Your task to perform on an android device: toggle show notifications on the lock screen Image 0: 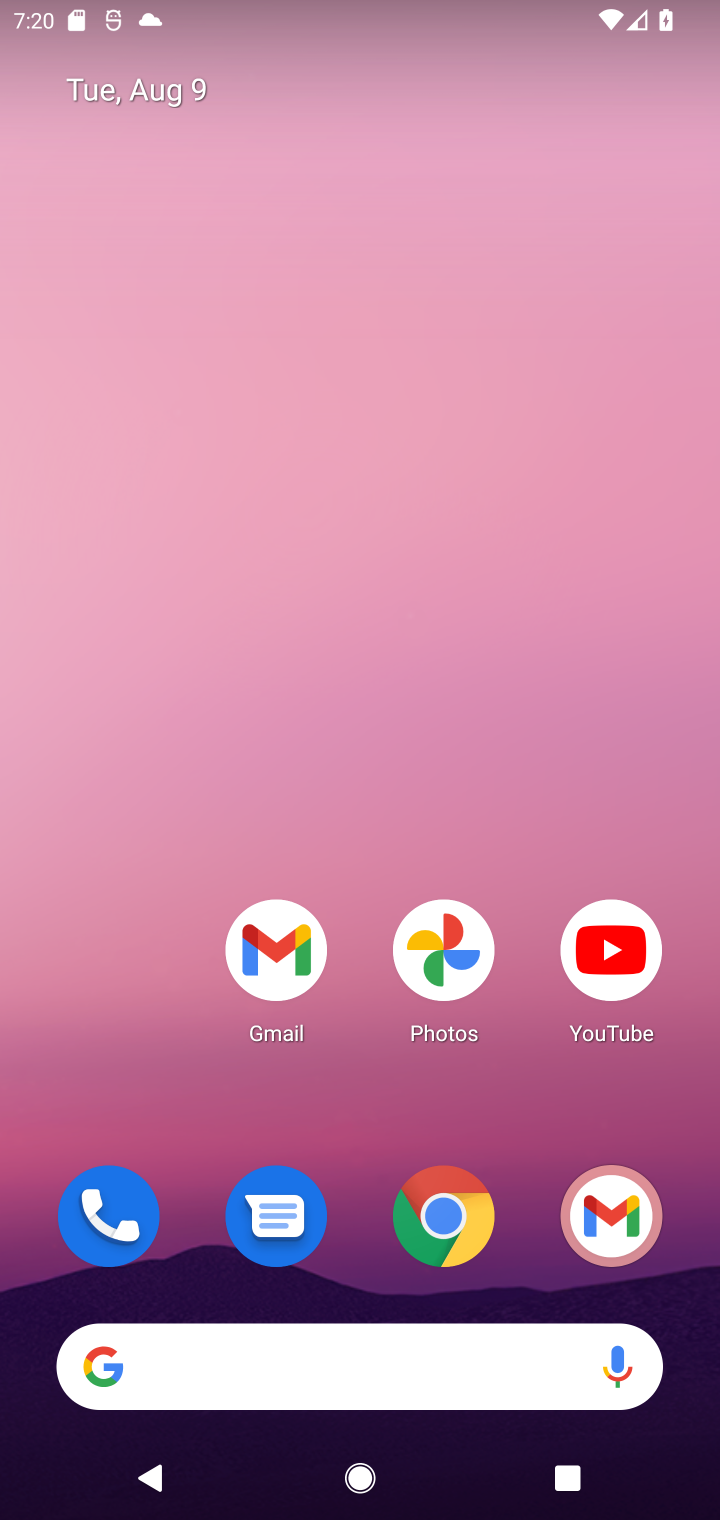
Step 0: drag from (390, 1130) to (295, 123)
Your task to perform on an android device: toggle show notifications on the lock screen Image 1: 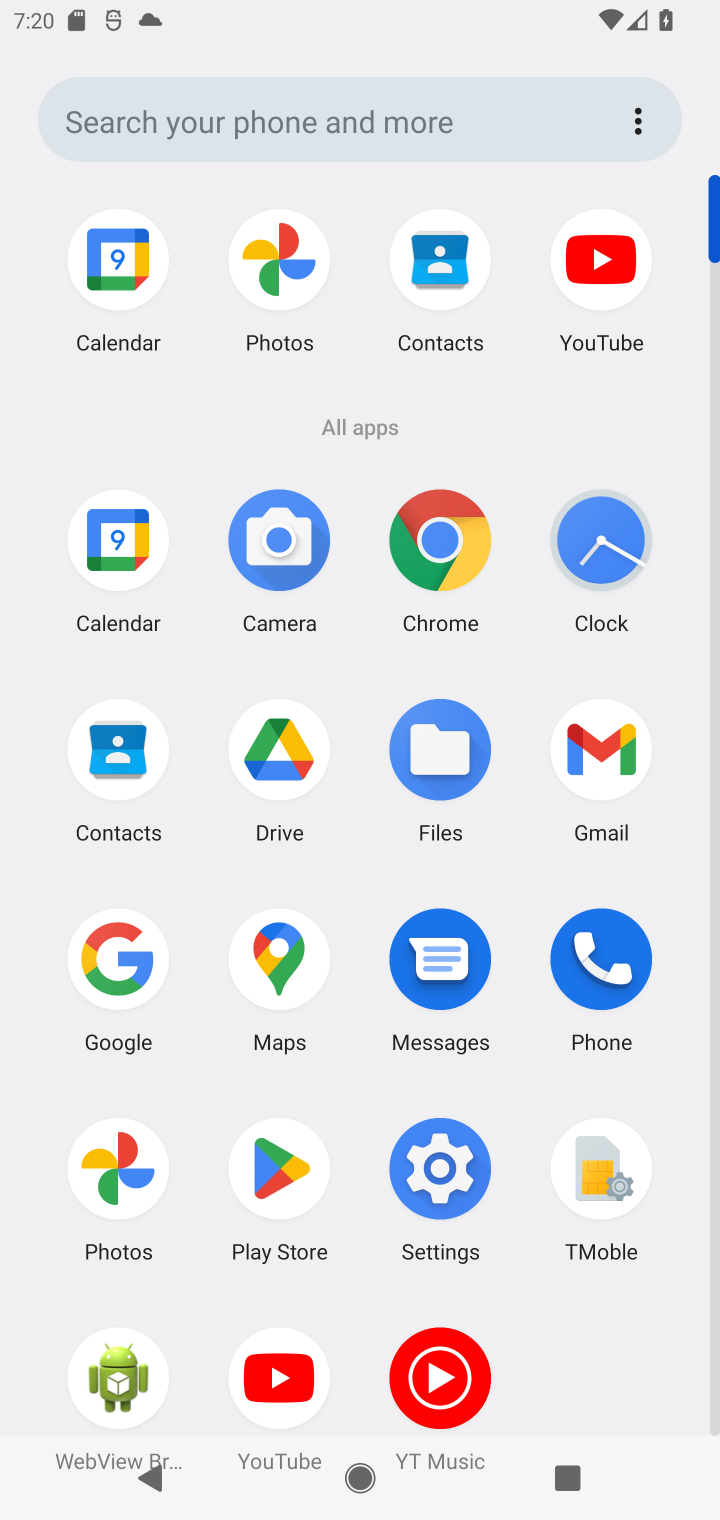
Step 1: click (432, 1171)
Your task to perform on an android device: toggle show notifications on the lock screen Image 2: 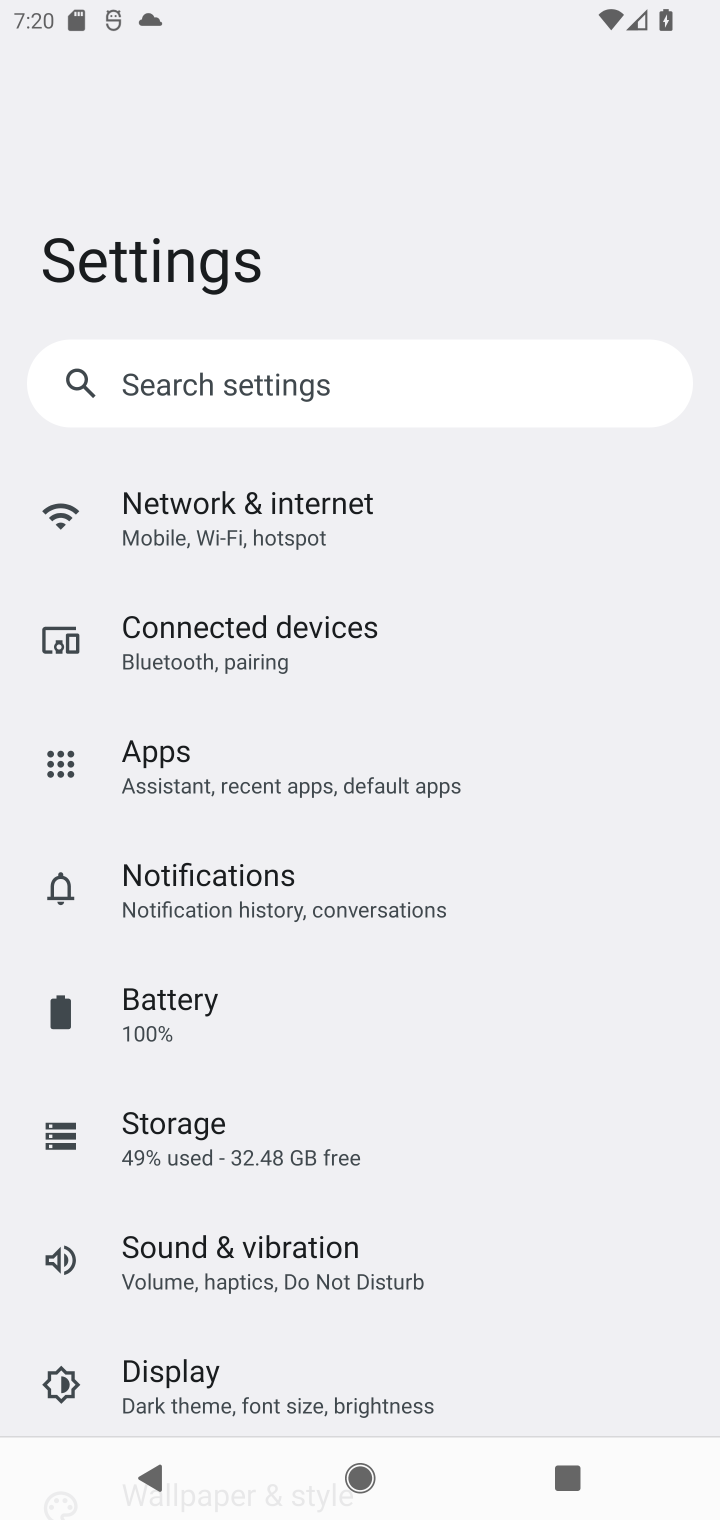
Step 2: click (178, 875)
Your task to perform on an android device: toggle show notifications on the lock screen Image 3: 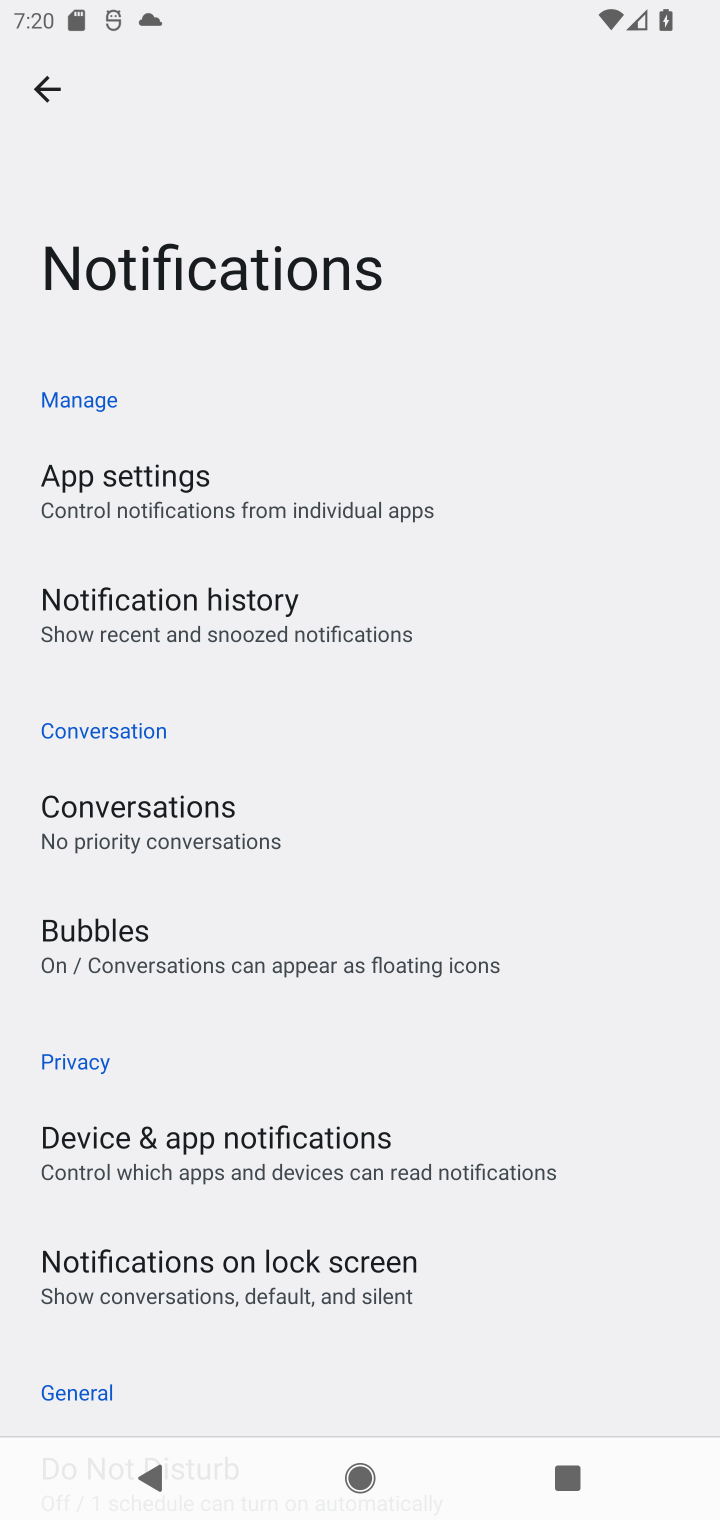
Step 3: click (302, 1256)
Your task to perform on an android device: toggle show notifications on the lock screen Image 4: 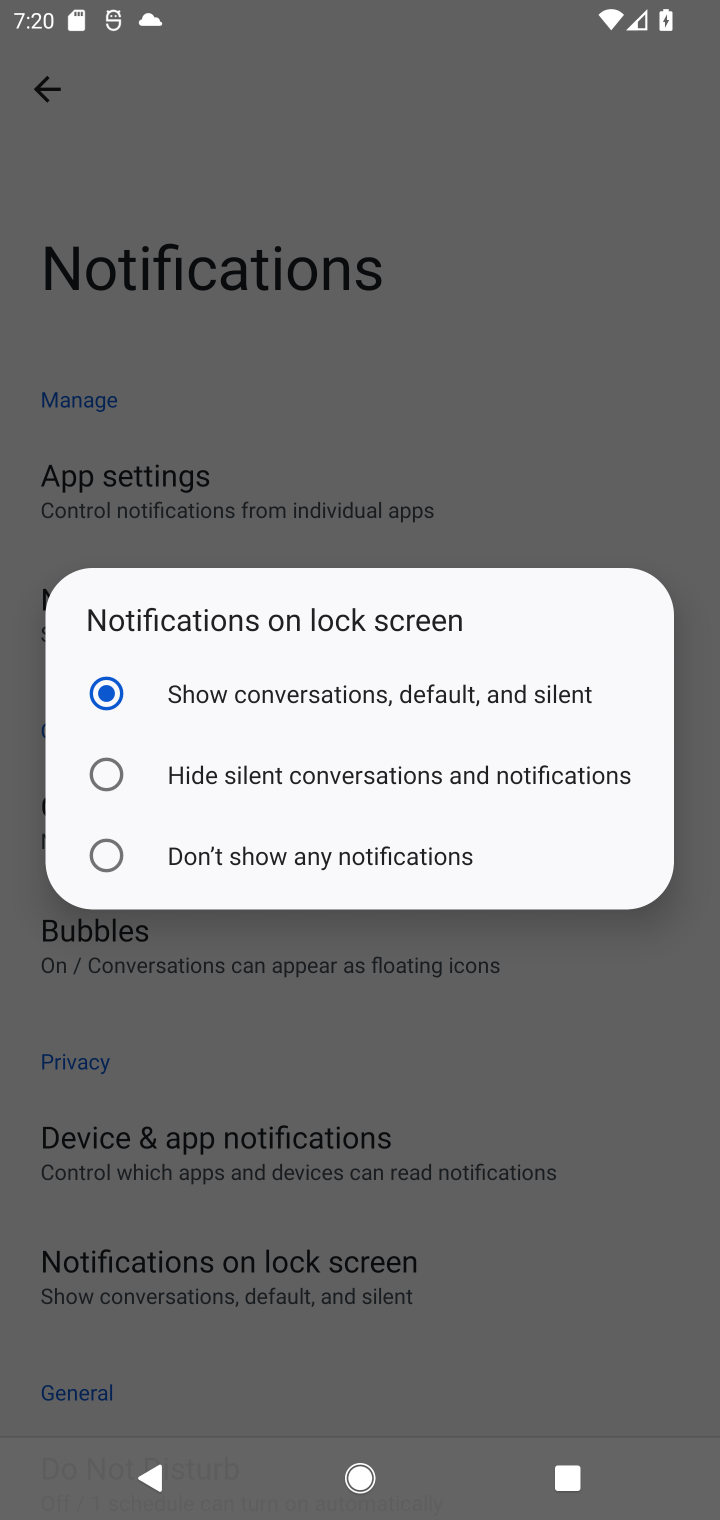
Step 4: click (111, 848)
Your task to perform on an android device: toggle show notifications on the lock screen Image 5: 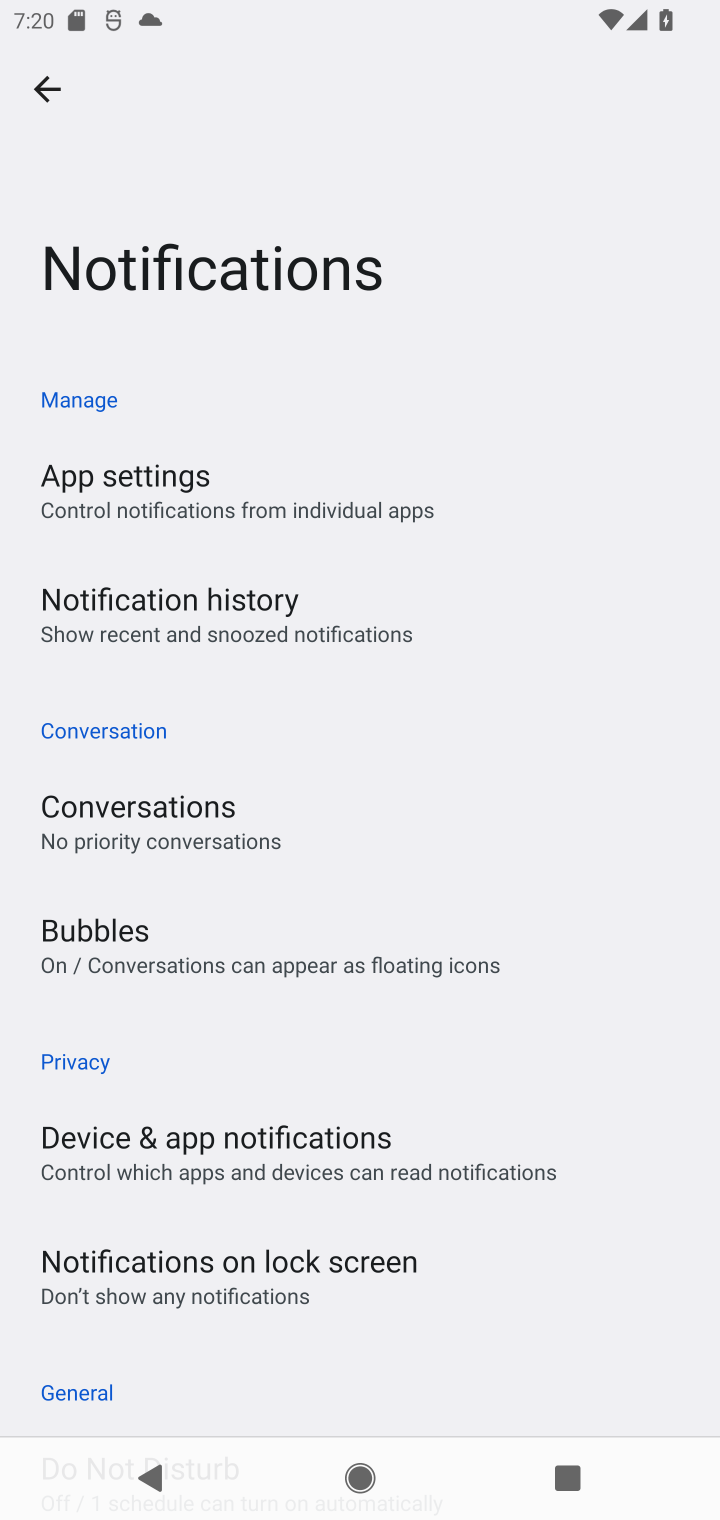
Step 5: task complete